Your task to perform on an android device: all mails in gmail Image 0: 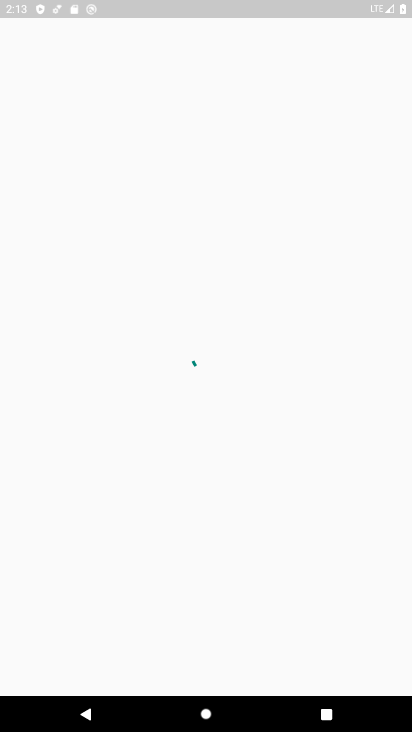
Step 0: press home button
Your task to perform on an android device: all mails in gmail Image 1: 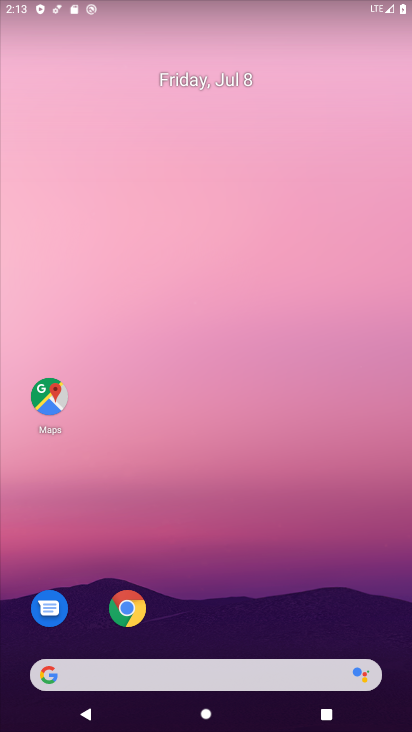
Step 1: drag from (223, 603) to (208, 155)
Your task to perform on an android device: all mails in gmail Image 2: 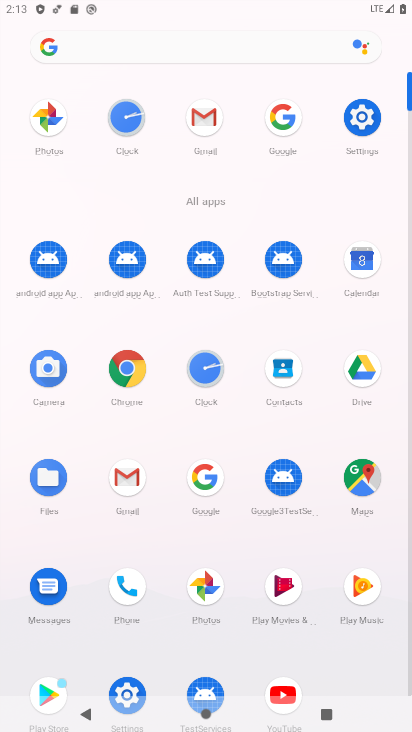
Step 2: click (204, 120)
Your task to perform on an android device: all mails in gmail Image 3: 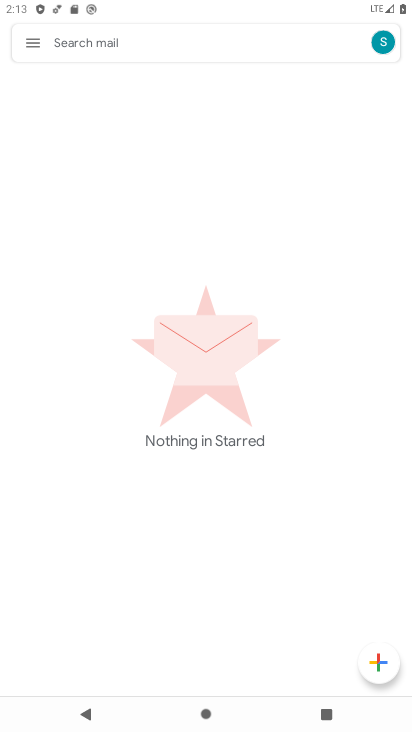
Step 3: click (32, 43)
Your task to perform on an android device: all mails in gmail Image 4: 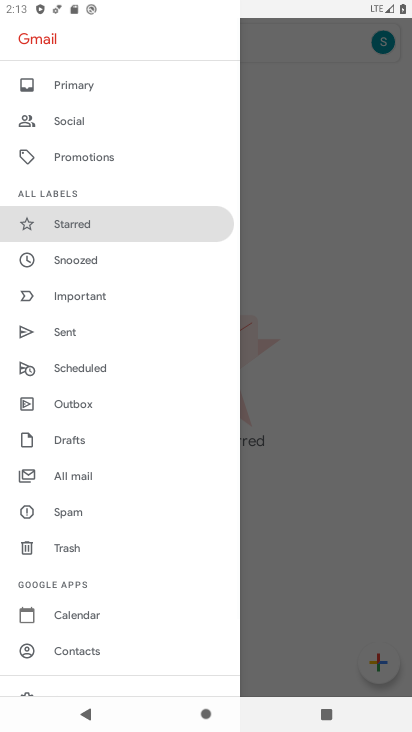
Step 4: click (47, 478)
Your task to perform on an android device: all mails in gmail Image 5: 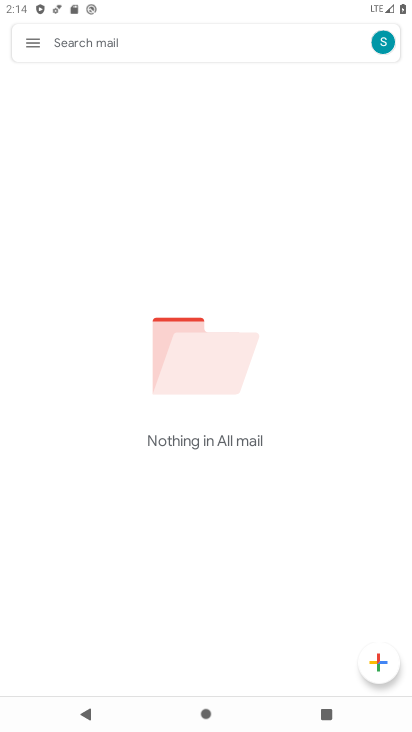
Step 5: task complete